Your task to perform on an android device: Open display settings Image 0: 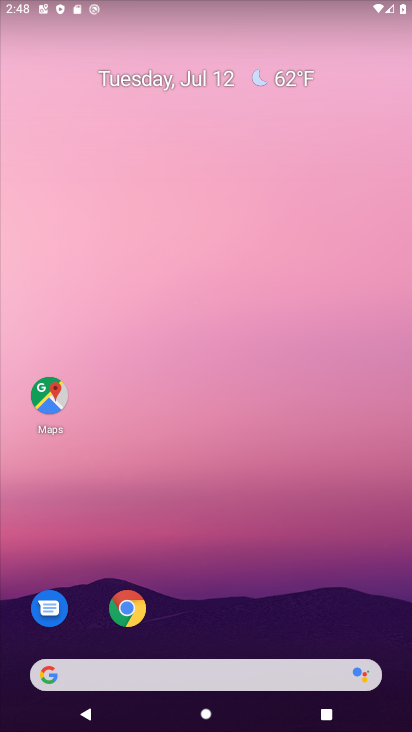
Step 0: press home button
Your task to perform on an android device: Open display settings Image 1: 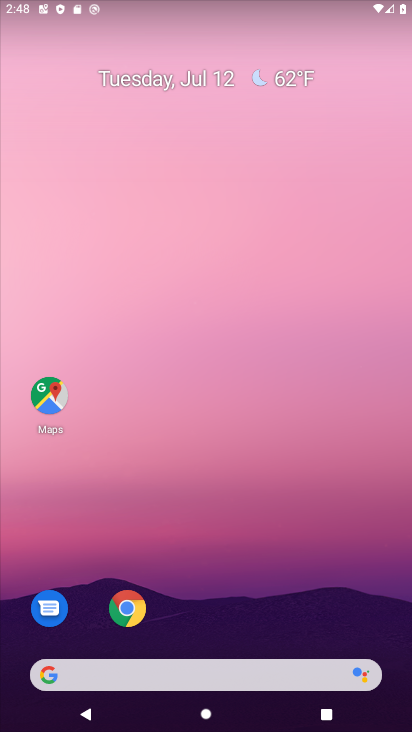
Step 1: drag from (157, 659) to (368, 41)
Your task to perform on an android device: Open display settings Image 2: 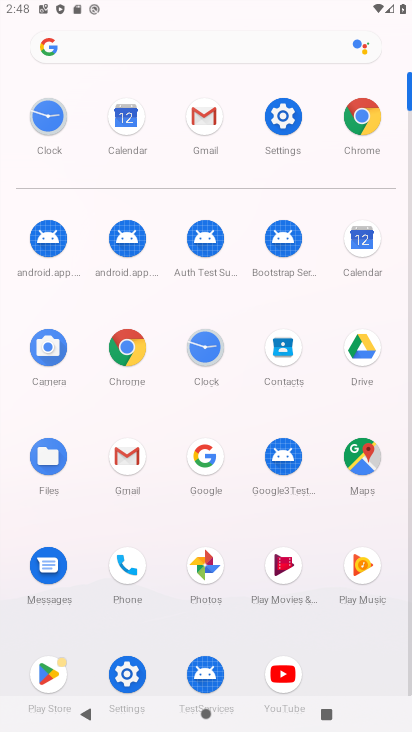
Step 2: click (284, 111)
Your task to perform on an android device: Open display settings Image 3: 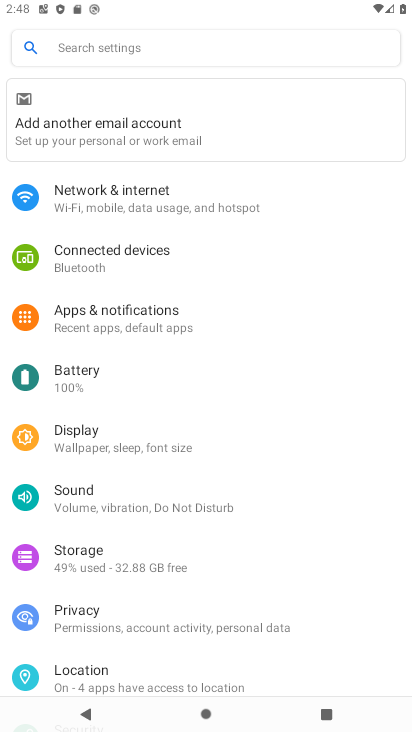
Step 3: click (106, 434)
Your task to perform on an android device: Open display settings Image 4: 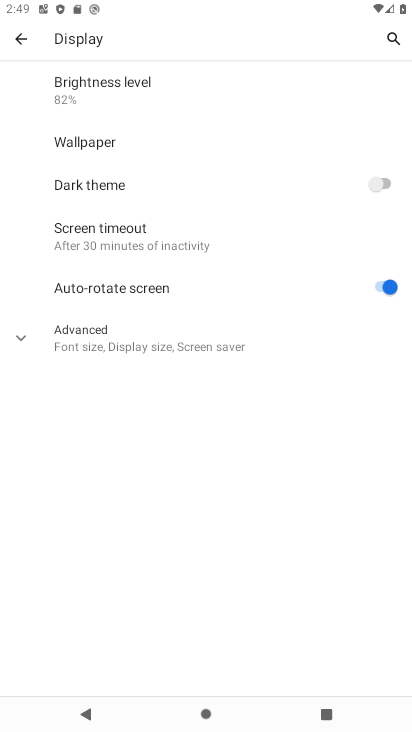
Step 4: task complete